Your task to perform on an android device: Show me the alarms in the clock app Image 0: 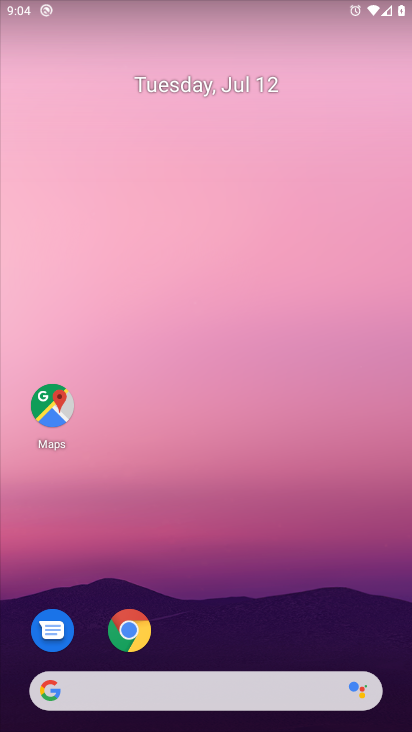
Step 0: press home button
Your task to perform on an android device: Show me the alarms in the clock app Image 1: 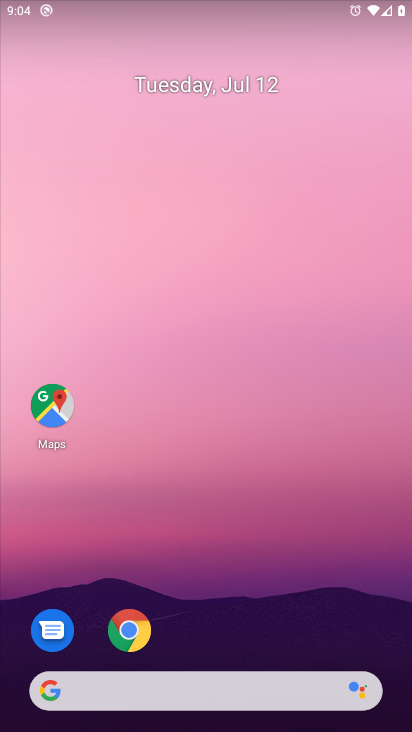
Step 1: drag from (227, 658) to (267, 230)
Your task to perform on an android device: Show me the alarms in the clock app Image 2: 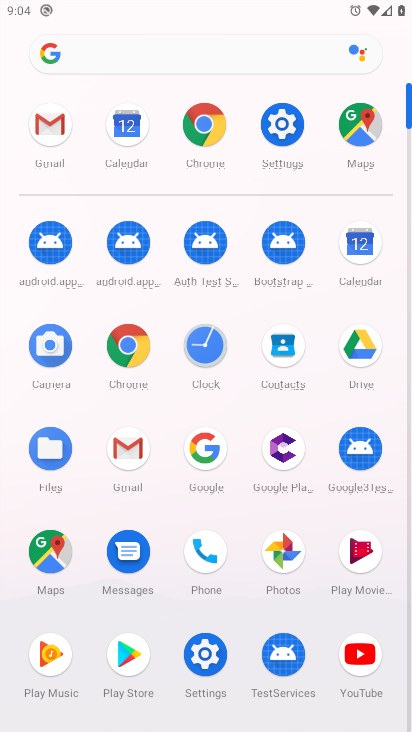
Step 2: click (202, 347)
Your task to perform on an android device: Show me the alarms in the clock app Image 3: 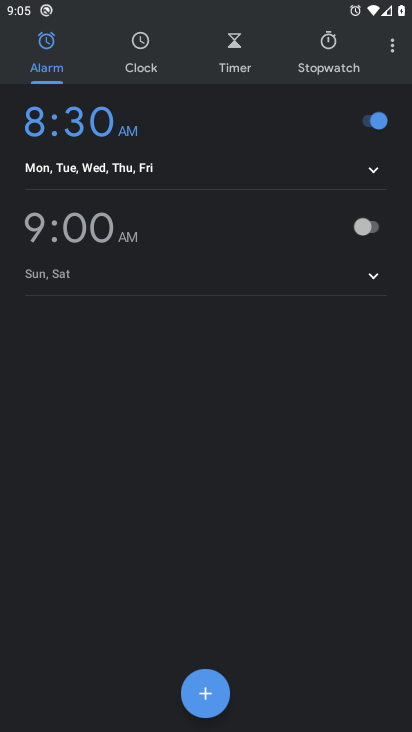
Step 3: task complete